Your task to perform on an android device: Open the map Image 0: 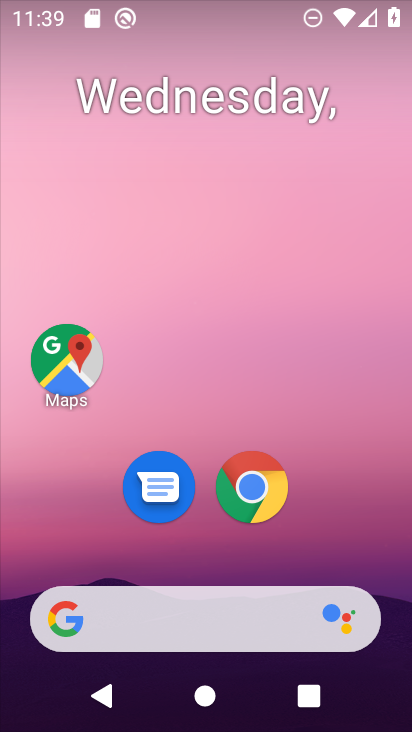
Step 0: click (62, 364)
Your task to perform on an android device: Open the map Image 1: 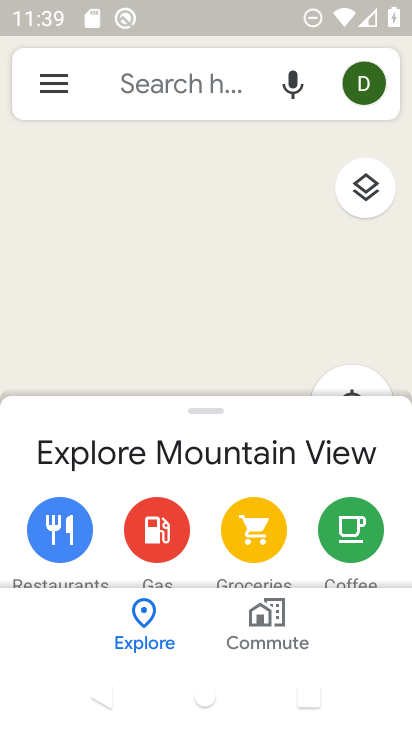
Step 1: click (132, 77)
Your task to perform on an android device: Open the map Image 2: 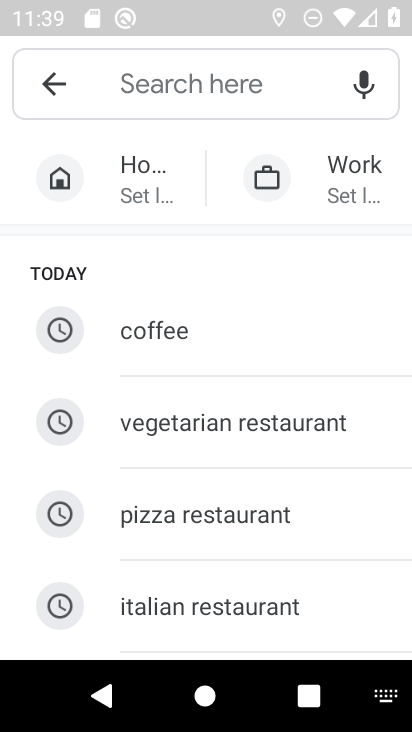
Step 2: task complete